Your task to perform on an android device: turn on wifi Image 0: 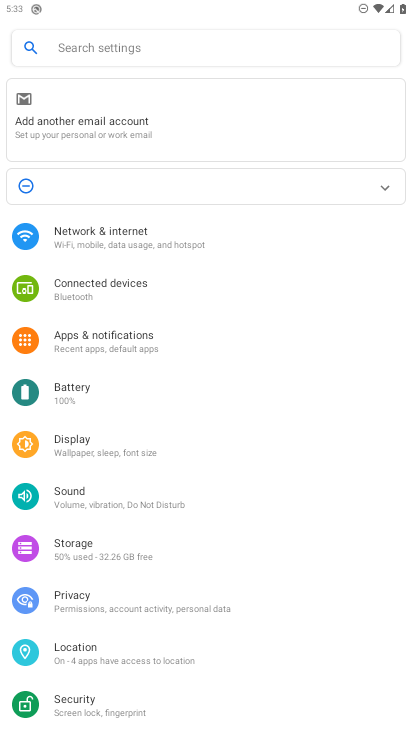
Step 0: click (107, 245)
Your task to perform on an android device: turn on wifi Image 1: 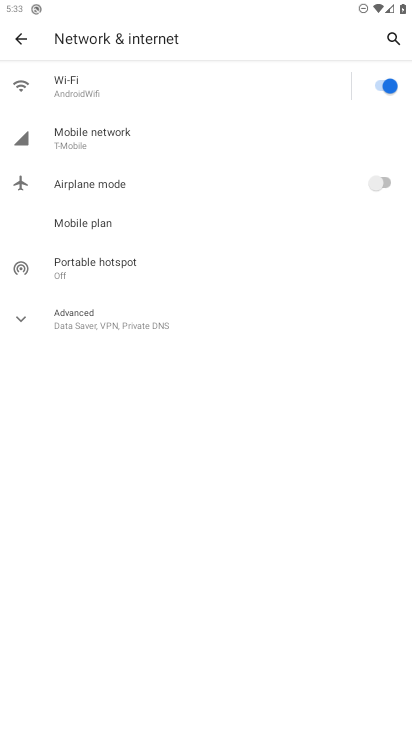
Step 1: task complete